Your task to perform on an android device: add a label to a message in the gmail app Image 0: 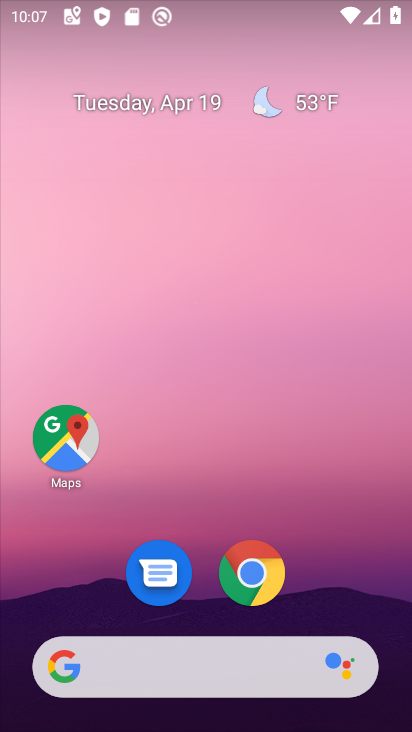
Step 0: drag from (217, 720) to (179, 13)
Your task to perform on an android device: add a label to a message in the gmail app Image 1: 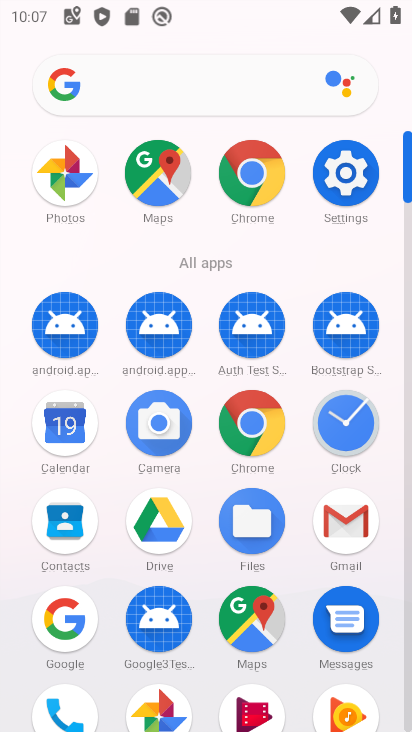
Step 1: click (343, 525)
Your task to perform on an android device: add a label to a message in the gmail app Image 2: 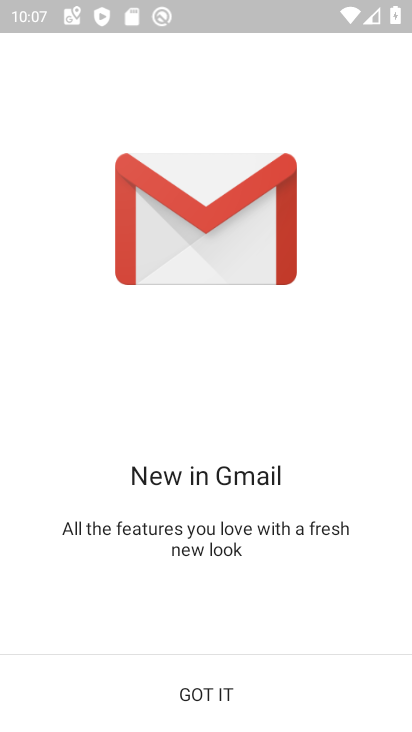
Step 2: click (202, 692)
Your task to perform on an android device: add a label to a message in the gmail app Image 3: 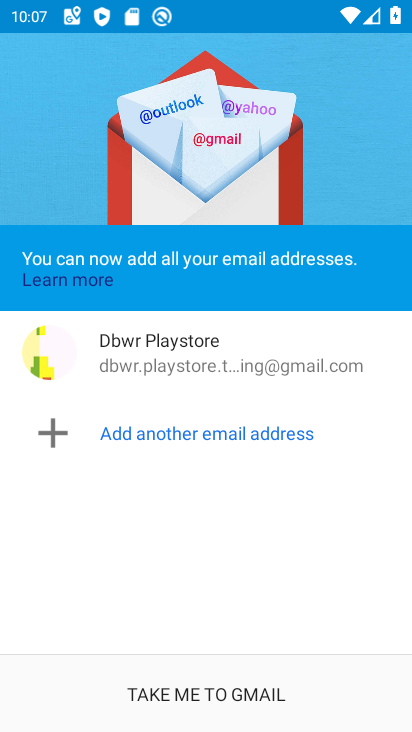
Step 3: click (202, 692)
Your task to perform on an android device: add a label to a message in the gmail app Image 4: 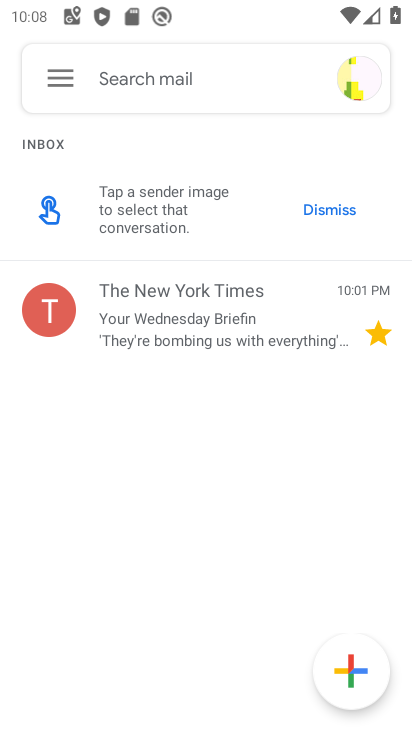
Step 4: click (169, 306)
Your task to perform on an android device: add a label to a message in the gmail app Image 5: 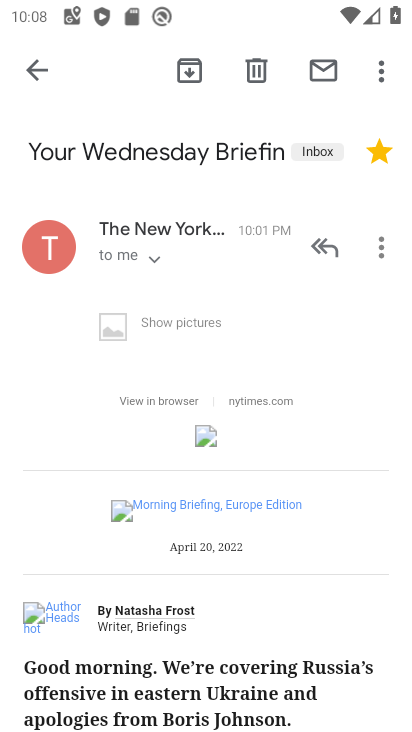
Step 5: click (378, 72)
Your task to perform on an android device: add a label to a message in the gmail app Image 6: 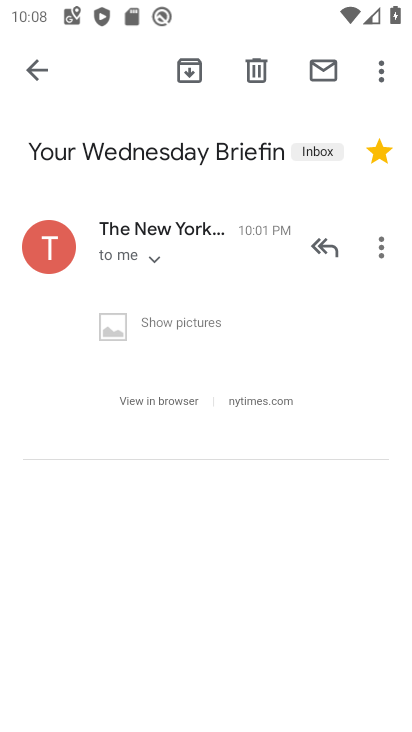
Step 6: click (380, 68)
Your task to perform on an android device: add a label to a message in the gmail app Image 7: 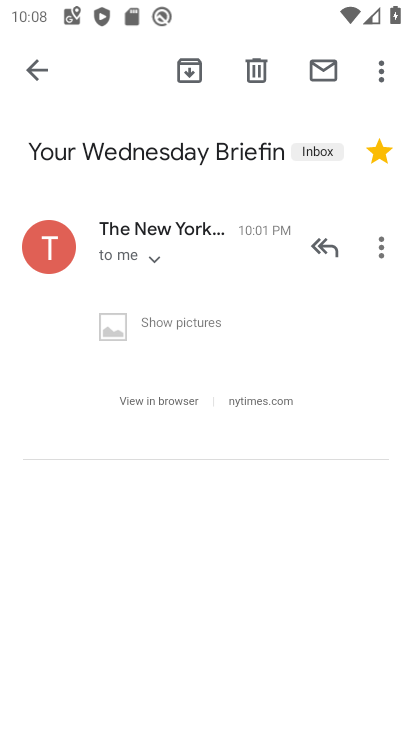
Step 7: click (382, 72)
Your task to perform on an android device: add a label to a message in the gmail app Image 8: 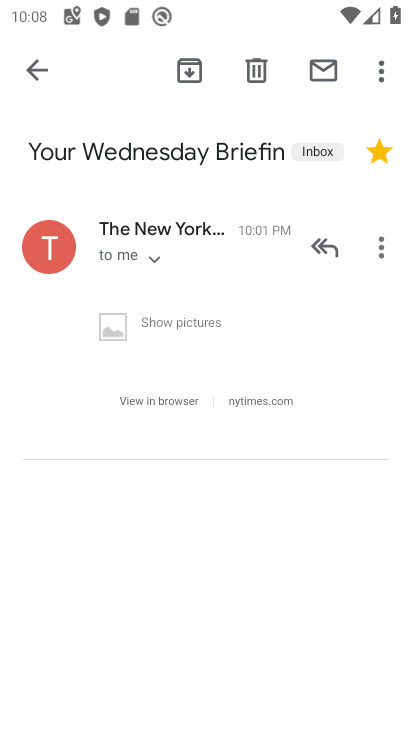
Step 8: click (382, 74)
Your task to perform on an android device: add a label to a message in the gmail app Image 9: 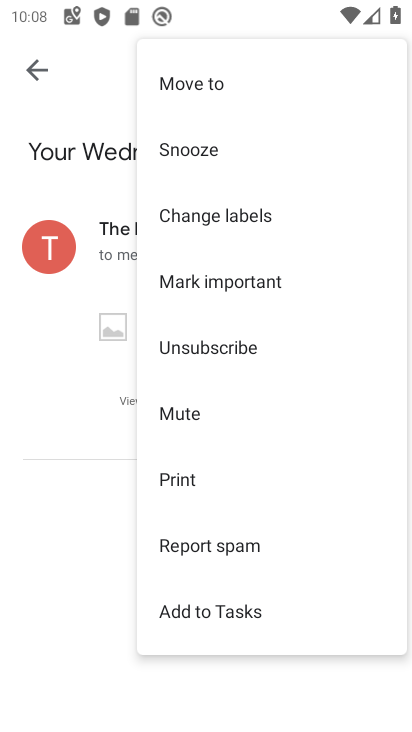
Step 9: click (219, 218)
Your task to perform on an android device: add a label to a message in the gmail app Image 10: 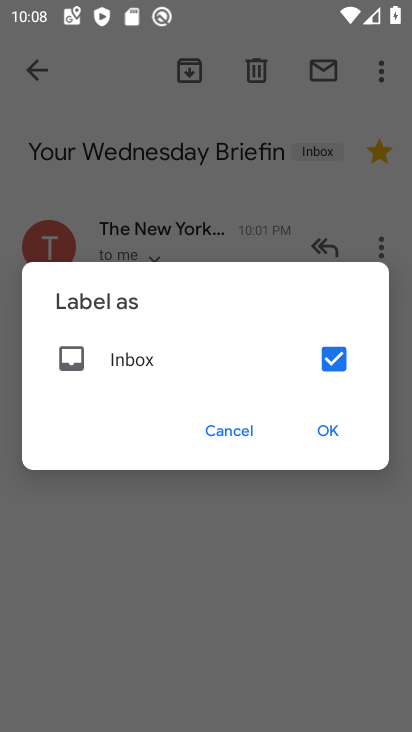
Step 10: click (338, 426)
Your task to perform on an android device: add a label to a message in the gmail app Image 11: 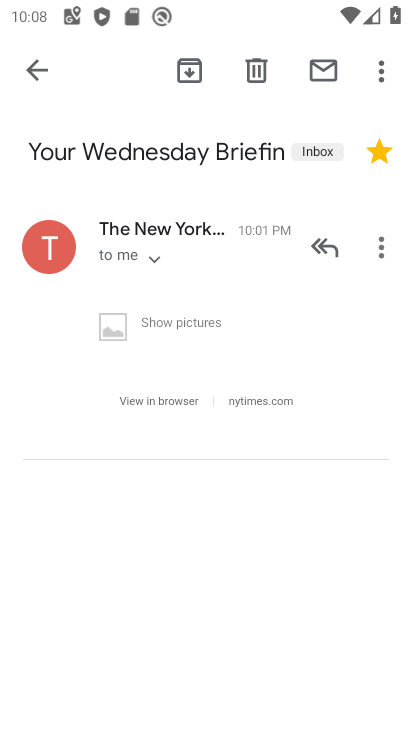
Step 11: task complete